Your task to perform on an android device: Open Reddit.com Image 0: 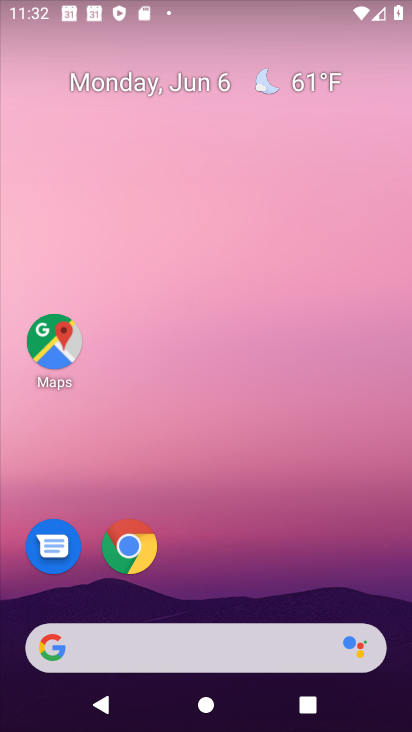
Step 0: click (134, 567)
Your task to perform on an android device: Open Reddit.com Image 1: 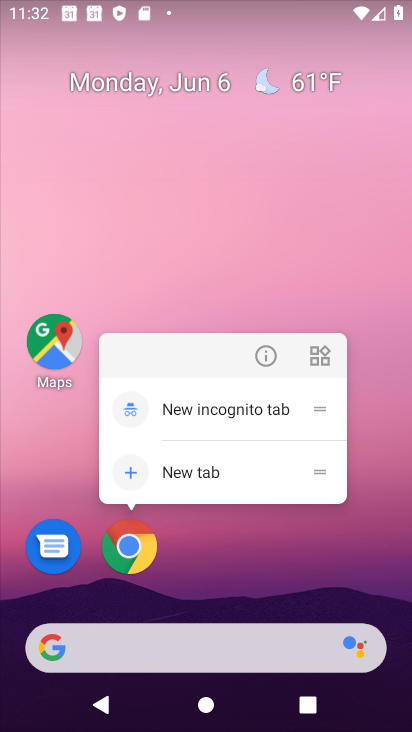
Step 1: click (144, 556)
Your task to perform on an android device: Open Reddit.com Image 2: 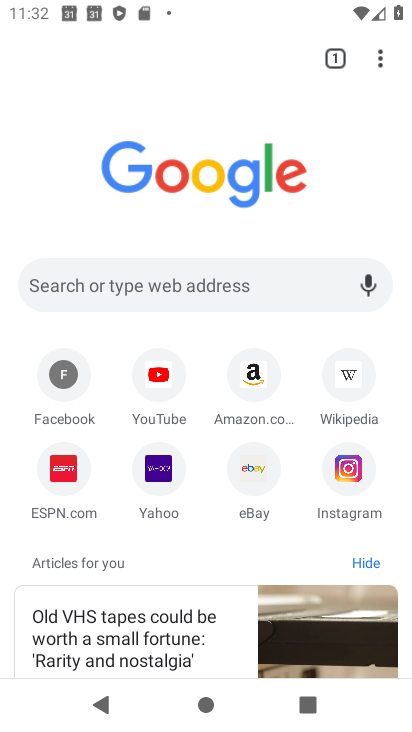
Step 2: click (164, 287)
Your task to perform on an android device: Open Reddit.com Image 3: 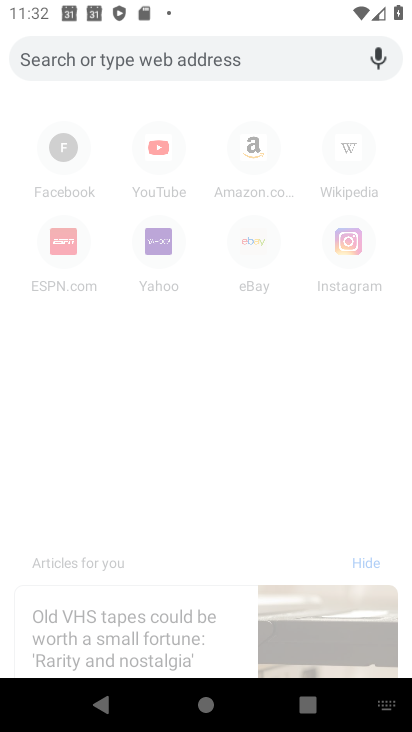
Step 3: type "reddit.com"
Your task to perform on an android device: Open Reddit.com Image 4: 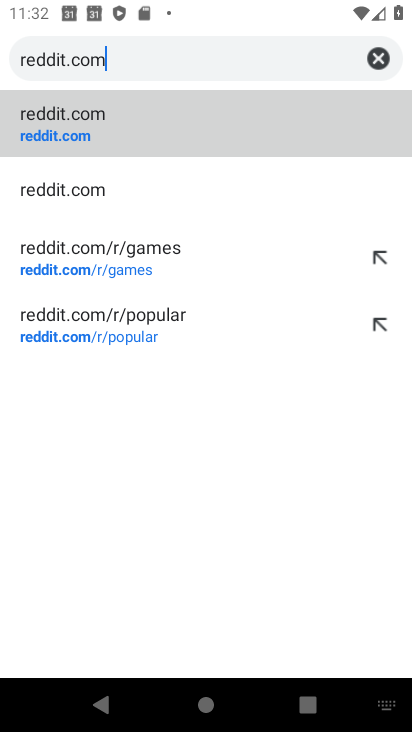
Step 4: click (81, 111)
Your task to perform on an android device: Open Reddit.com Image 5: 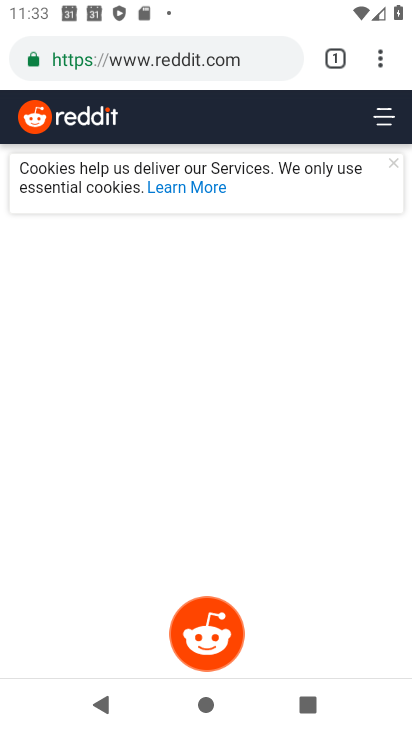
Step 5: task complete